Your task to perform on an android device: Go to network settings Image 0: 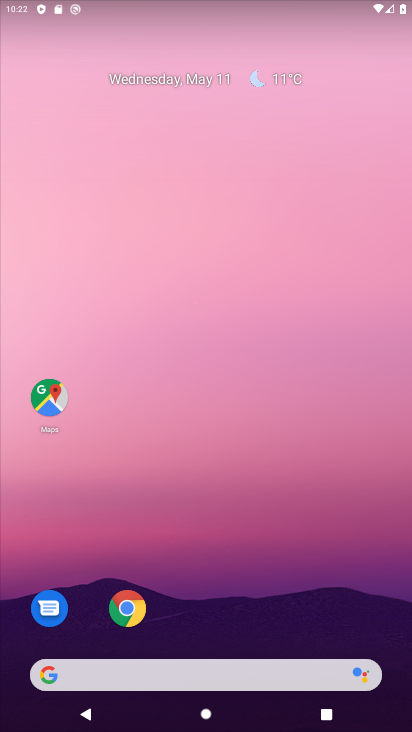
Step 0: drag from (225, 455) to (225, 205)
Your task to perform on an android device: Go to network settings Image 1: 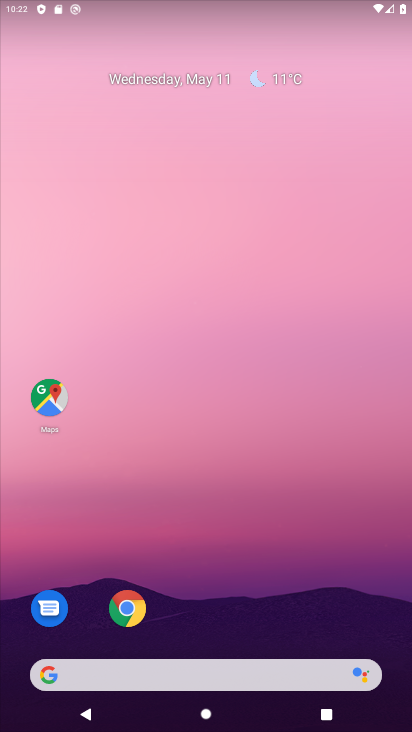
Step 1: drag from (201, 614) to (223, 110)
Your task to perform on an android device: Go to network settings Image 2: 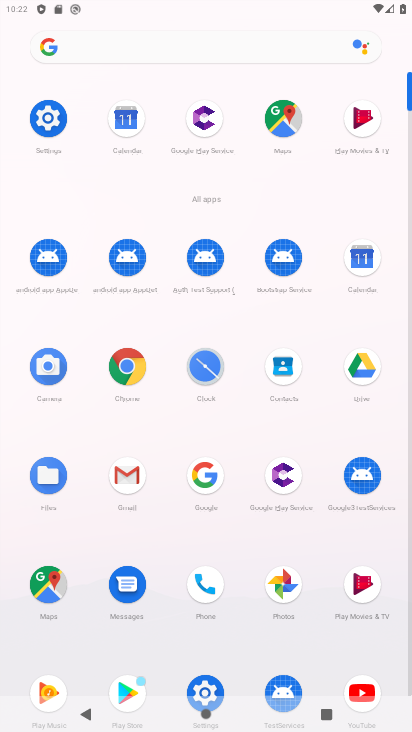
Step 2: click (45, 131)
Your task to perform on an android device: Go to network settings Image 3: 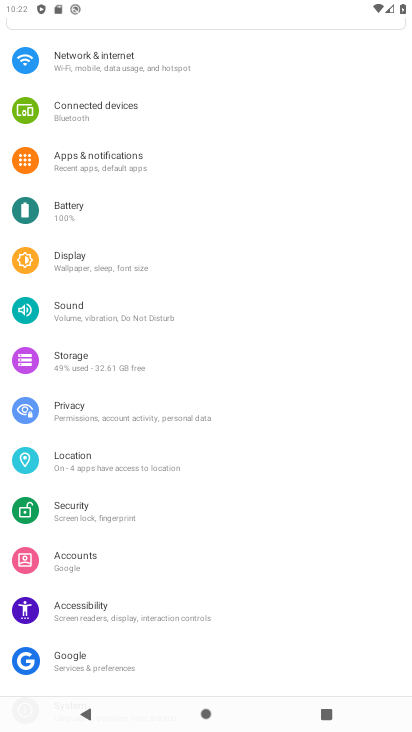
Step 3: click (144, 75)
Your task to perform on an android device: Go to network settings Image 4: 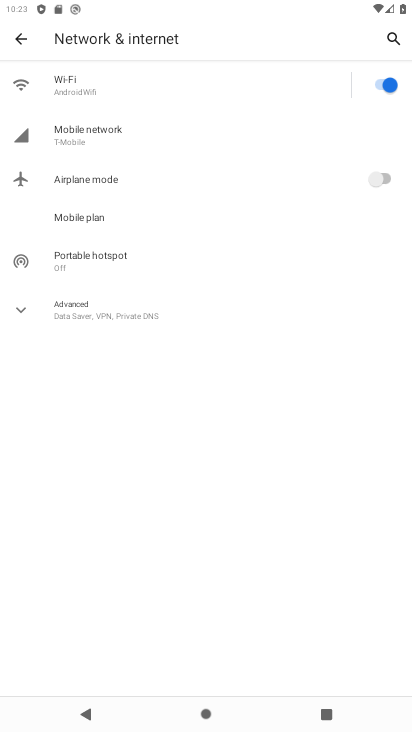
Step 4: task complete